Your task to perform on an android device: What is the recent news? Image 0: 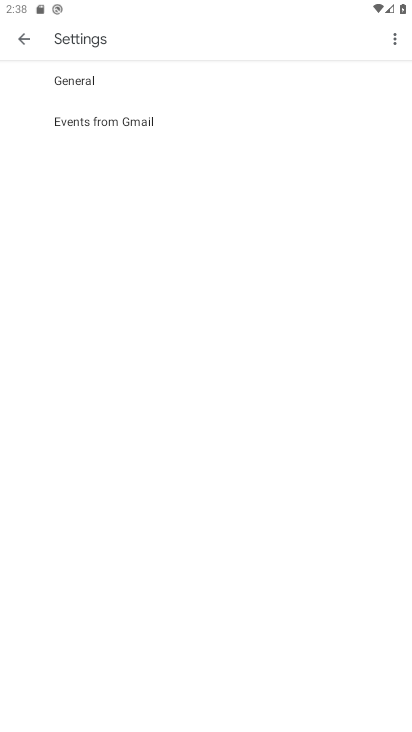
Step 0: press home button
Your task to perform on an android device: What is the recent news? Image 1: 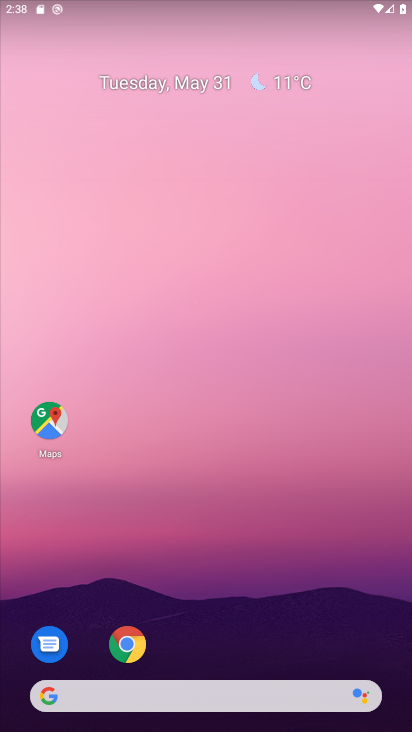
Step 1: click (141, 687)
Your task to perform on an android device: What is the recent news? Image 2: 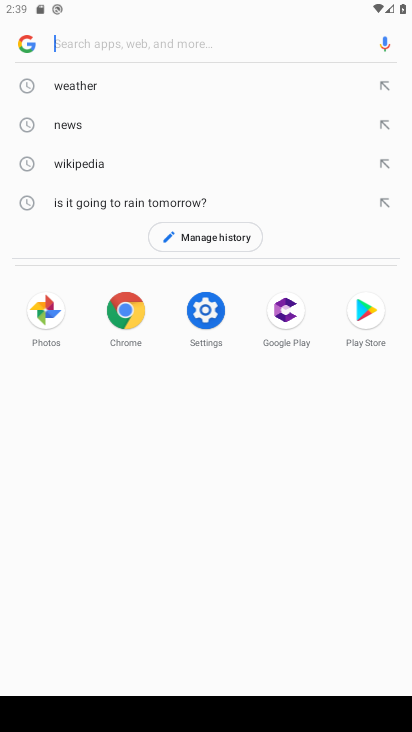
Step 2: type "what is the recent news"
Your task to perform on an android device: What is the recent news? Image 3: 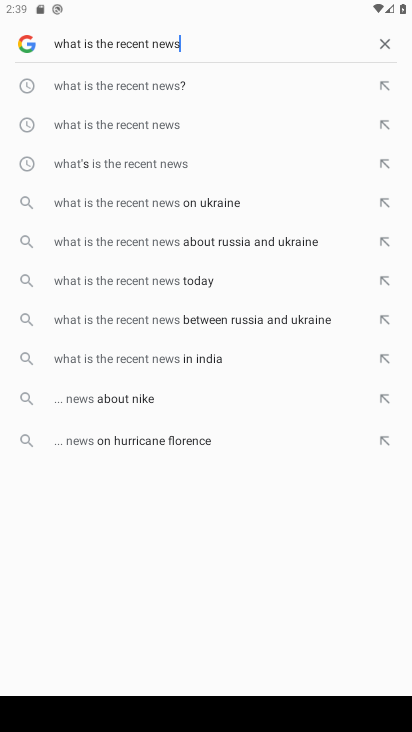
Step 3: click (75, 85)
Your task to perform on an android device: What is the recent news? Image 4: 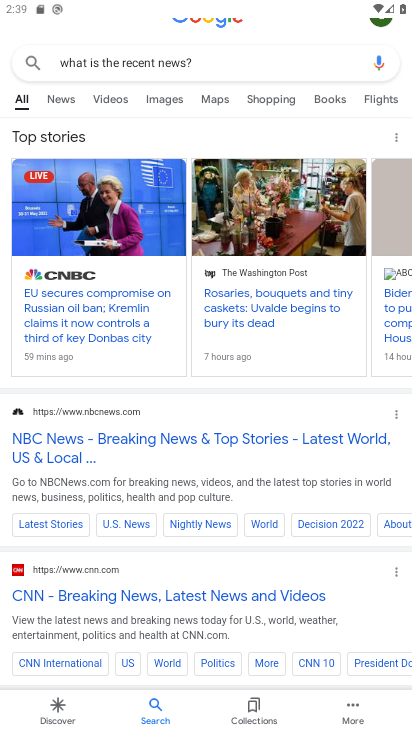
Step 4: click (52, 98)
Your task to perform on an android device: What is the recent news? Image 5: 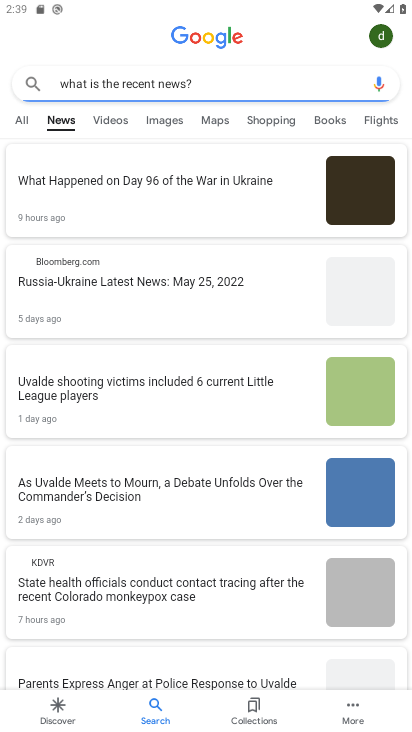
Step 5: task complete